Your task to perform on an android device: install app "Speedtest by Ookla" Image 0: 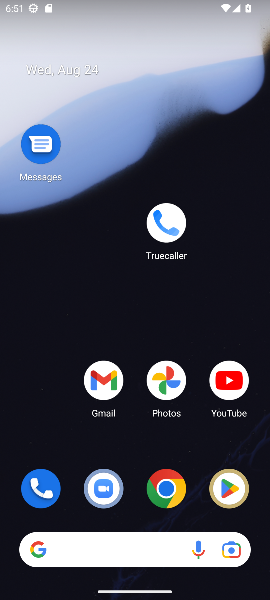
Step 0: drag from (142, 510) to (139, 79)
Your task to perform on an android device: install app "Speedtest by Ookla" Image 1: 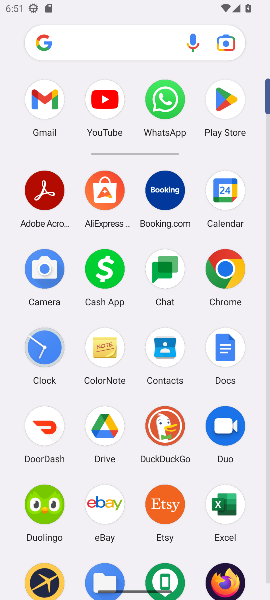
Step 1: click (221, 108)
Your task to perform on an android device: install app "Speedtest by Ookla" Image 2: 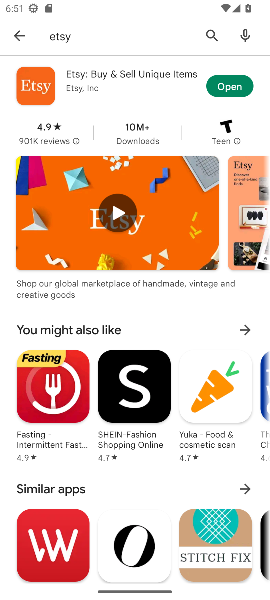
Step 2: click (211, 41)
Your task to perform on an android device: install app "Speedtest by Ookla" Image 3: 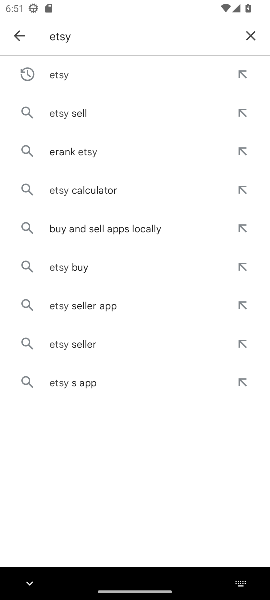
Step 3: click (245, 39)
Your task to perform on an android device: install app "Speedtest by Ookla" Image 4: 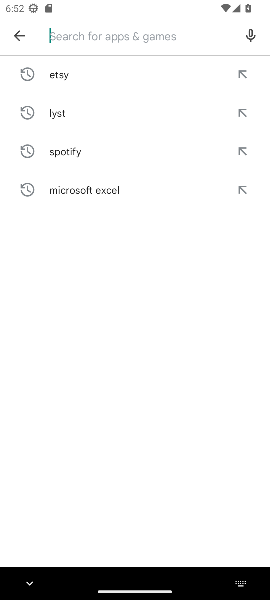
Step 4: type "speedtest "
Your task to perform on an android device: install app "Speedtest by Ookla" Image 5: 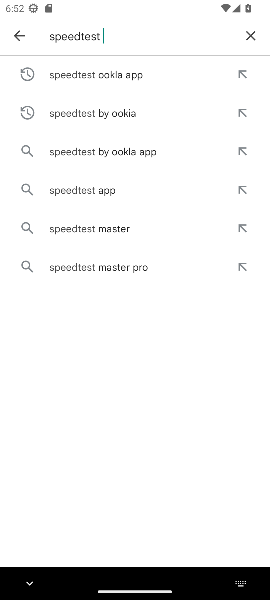
Step 5: click (102, 80)
Your task to perform on an android device: install app "Speedtest by Ookla" Image 6: 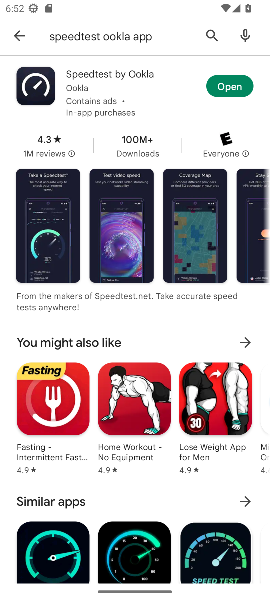
Step 6: click (221, 81)
Your task to perform on an android device: install app "Speedtest by Ookla" Image 7: 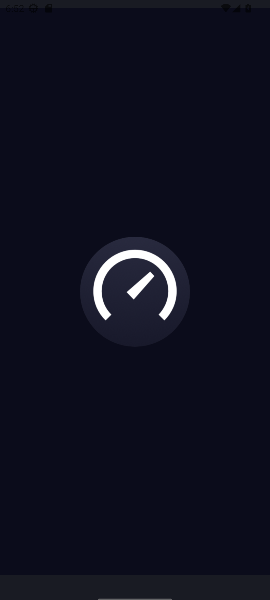
Step 7: task complete